Your task to perform on an android device: turn off location history Image 0: 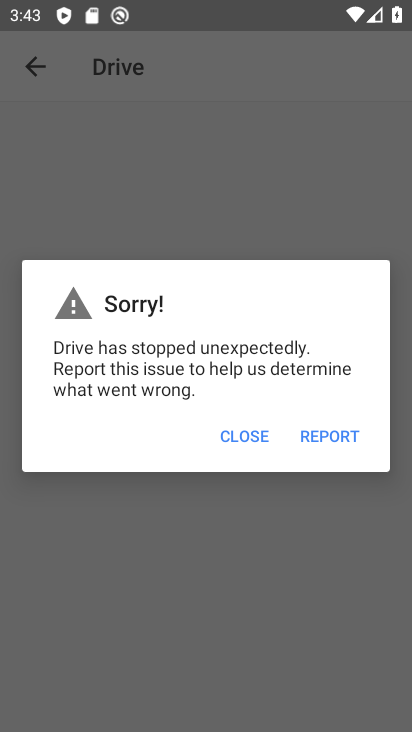
Step 0: press home button
Your task to perform on an android device: turn off location history Image 1: 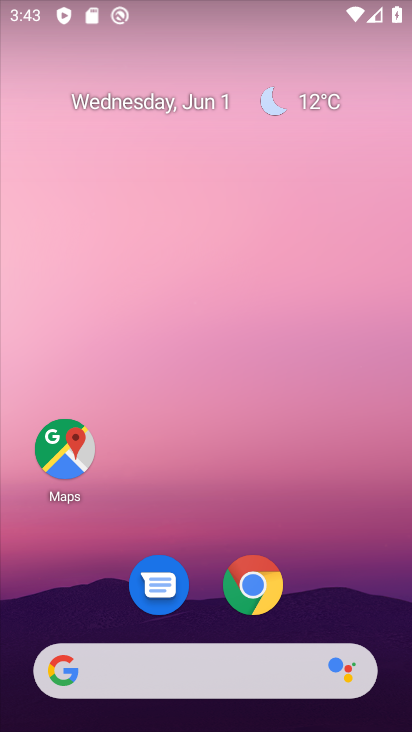
Step 1: drag from (286, 554) to (297, 0)
Your task to perform on an android device: turn off location history Image 2: 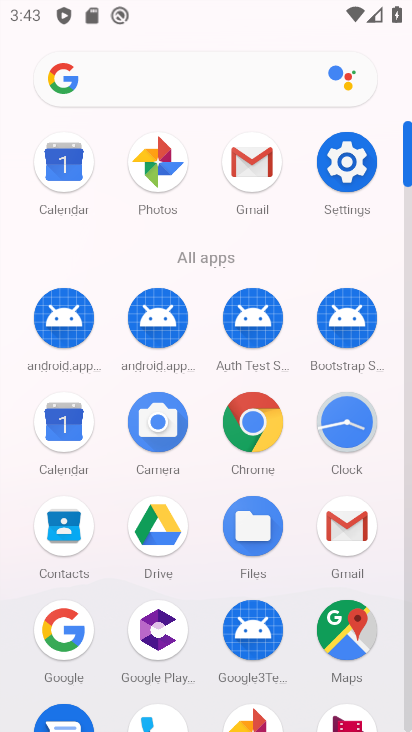
Step 2: click (341, 148)
Your task to perform on an android device: turn off location history Image 3: 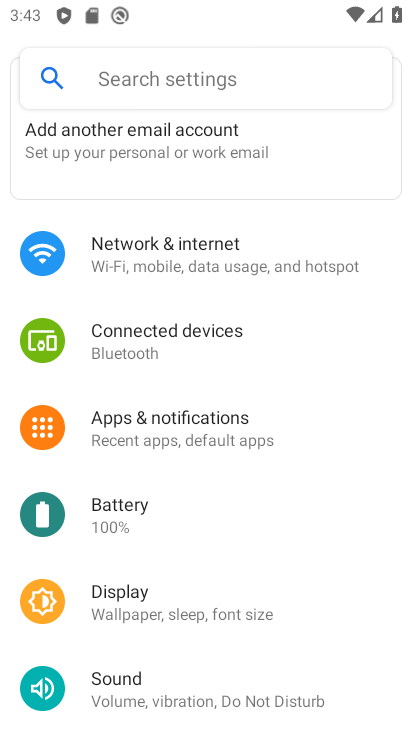
Step 3: drag from (218, 613) to (257, 282)
Your task to perform on an android device: turn off location history Image 4: 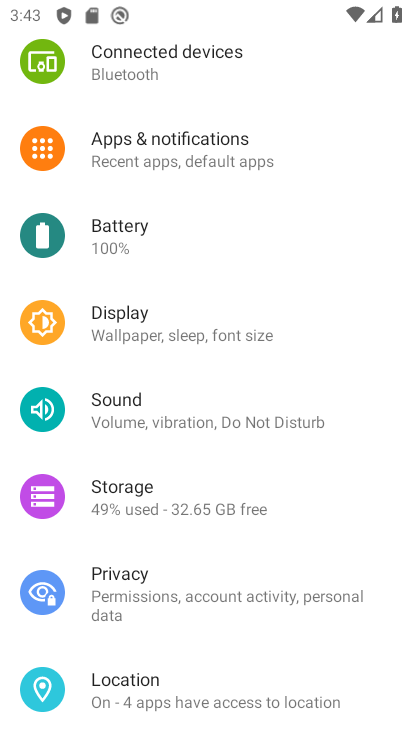
Step 4: click (214, 698)
Your task to perform on an android device: turn off location history Image 5: 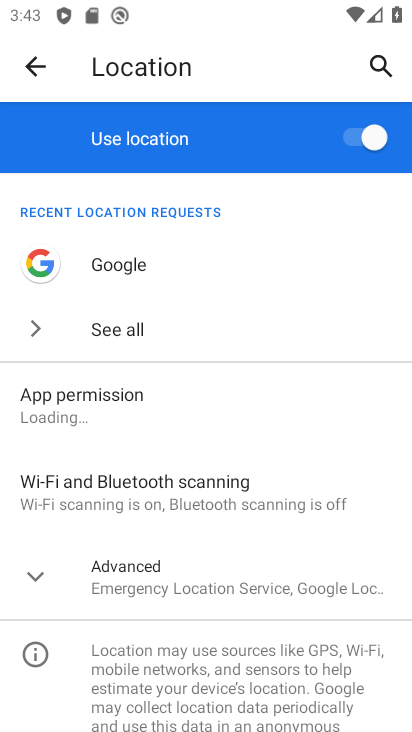
Step 5: click (39, 572)
Your task to perform on an android device: turn off location history Image 6: 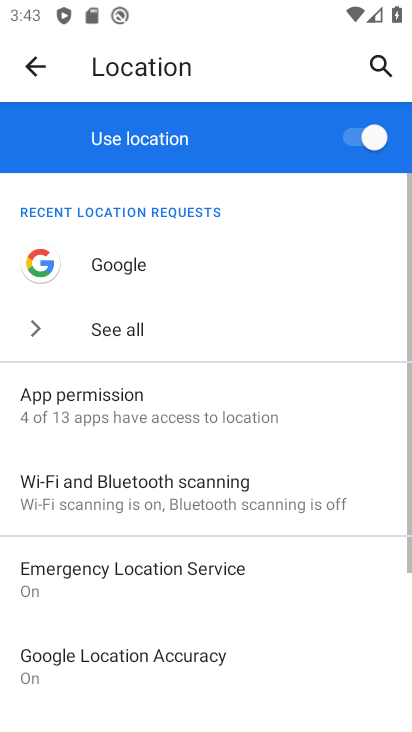
Step 6: drag from (214, 599) to (236, 325)
Your task to perform on an android device: turn off location history Image 7: 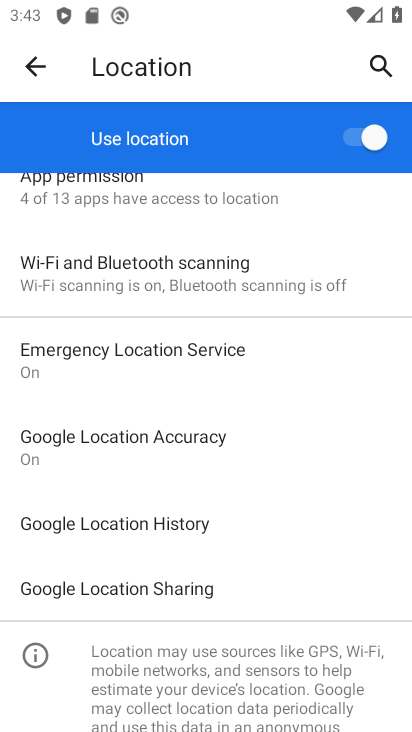
Step 7: click (185, 515)
Your task to perform on an android device: turn off location history Image 8: 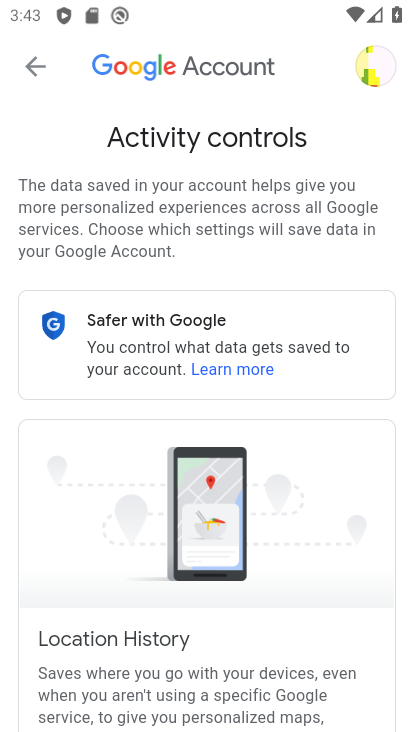
Step 8: drag from (275, 551) to (295, 194)
Your task to perform on an android device: turn off location history Image 9: 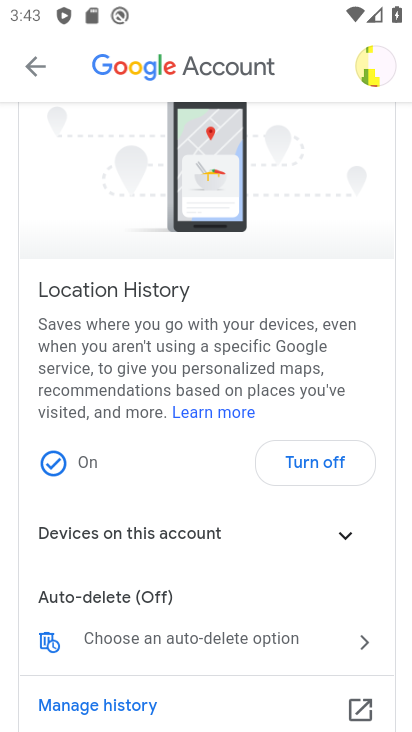
Step 9: click (307, 455)
Your task to perform on an android device: turn off location history Image 10: 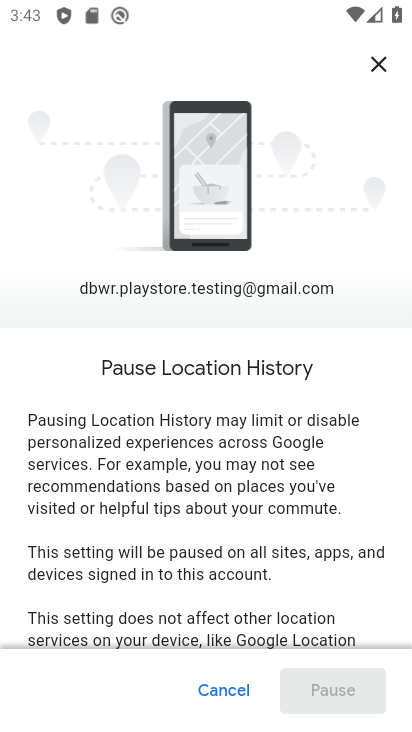
Step 10: drag from (299, 578) to (281, 147)
Your task to perform on an android device: turn off location history Image 11: 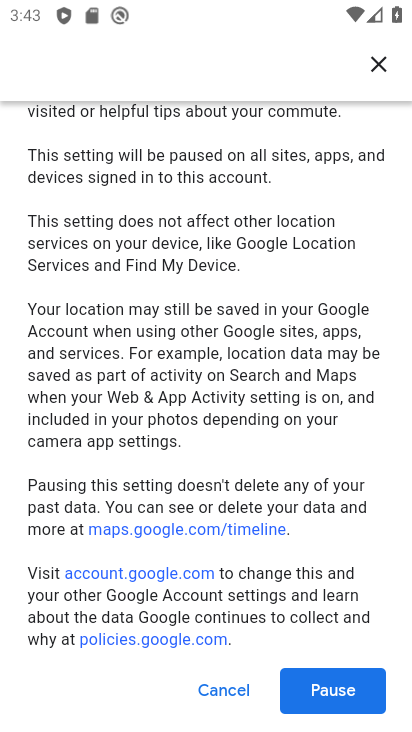
Step 11: click (320, 689)
Your task to perform on an android device: turn off location history Image 12: 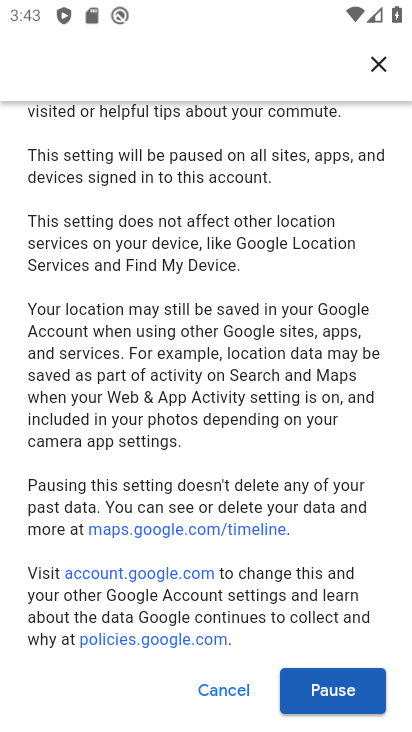
Step 12: click (322, 687)
Your task to perform on an android device: turn off location history Image 13: 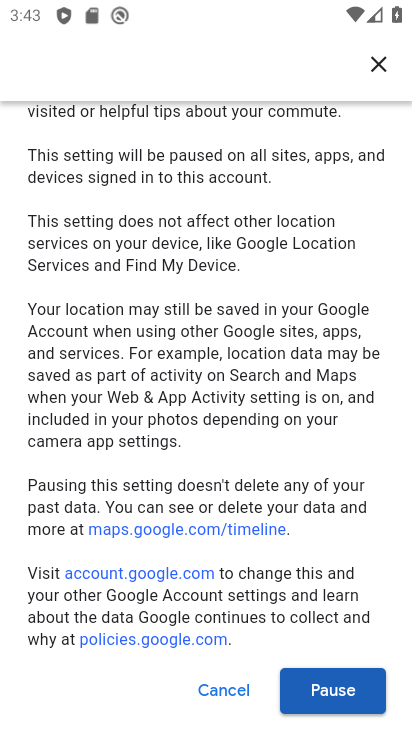
Step 13: click (322, 686)
Your task to perform on an android device: turn off location history Image 14: 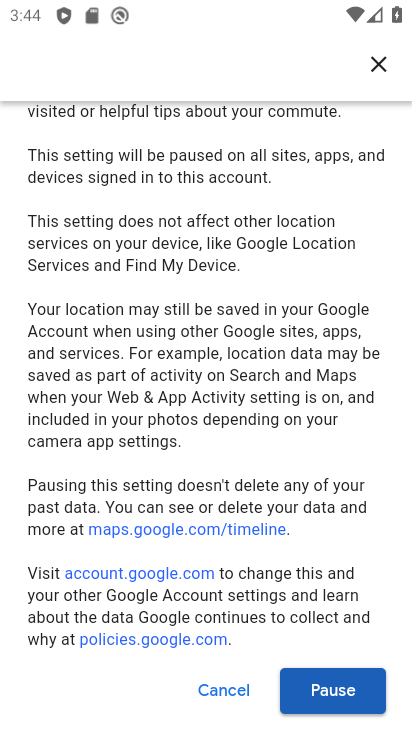
Step 14: click (347, 683)
Your task to perform on an android device: turn off location history Image 15: 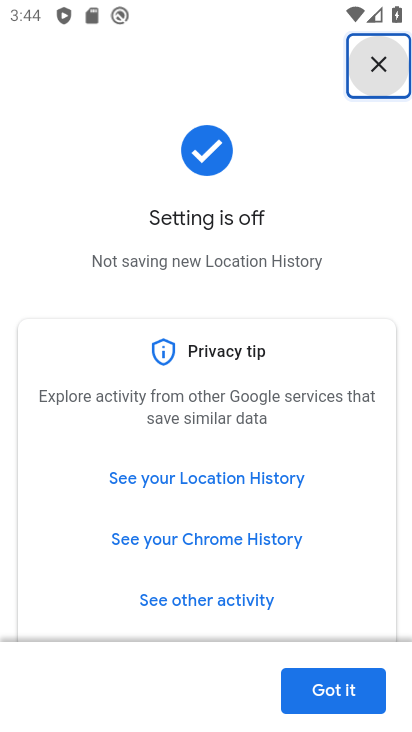
Step 15: click (348, 683)
Your task to perform on an android device: turn off location history Image 16: 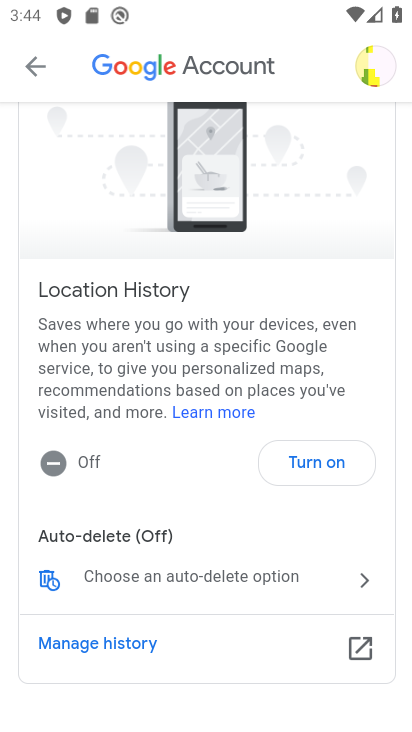
Step 16: task complete